Your task to perform on an android device: Search for Italian restaurants on Maps Image 0: 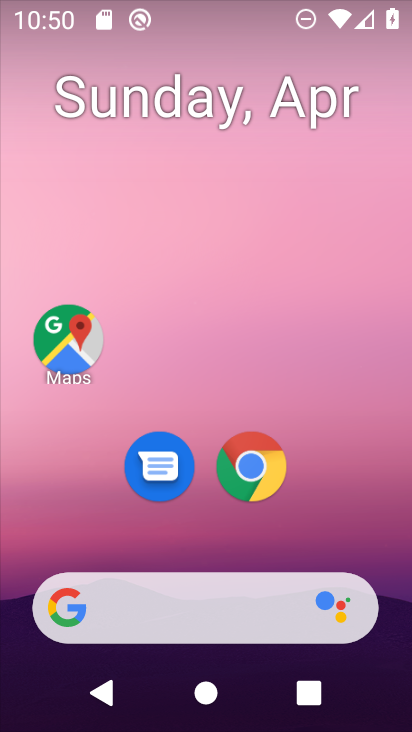
Step 0: drag from (353, 522) to (360, 150)
Your task to perform on an android device: Search for Italian restaurants on Maps Image 1: 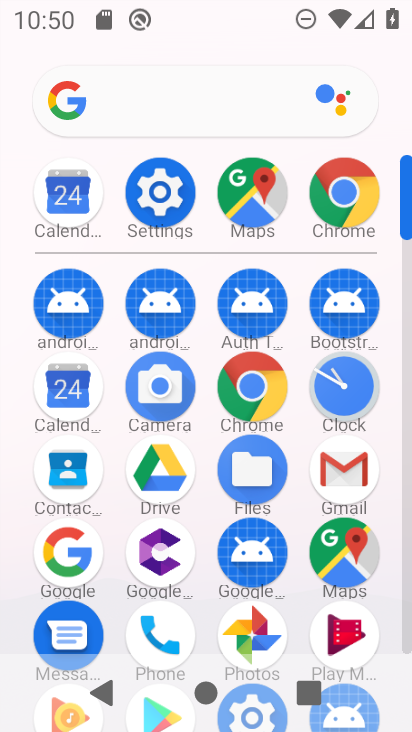
Step 1: click (349, 555)
Your task to perform on an android device: Search for Italian restaurants on Maps Image 2: 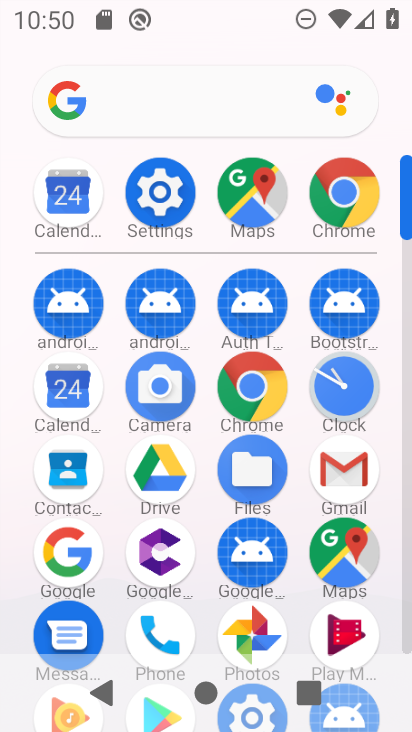
Step 2: click (349, 555)
Your task to perform on an android device: Search for Italian restaurants on Maps Image 3: 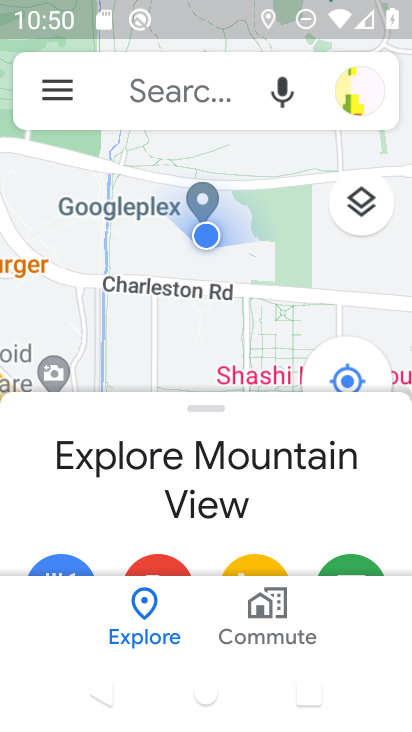
Step 3: click (187, 94)
Your task to perform on an android device: Search for Italian restaurants on Maps Image 4: 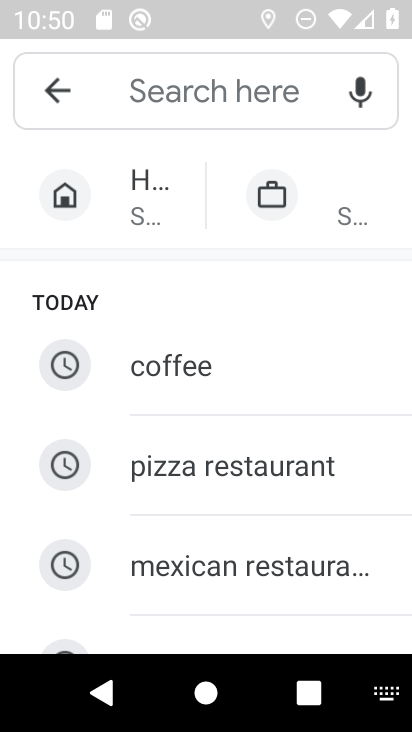
Step 4: type "italian restaurants"
Your task to perform on an android device: Search for Italian restaurants on Maps Image 5: 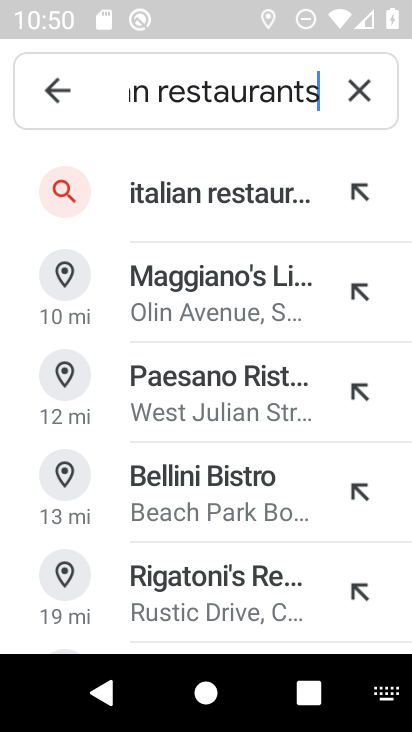
Step 5: click (297, 200)
Your task to perform on an android device: Search for Italian restaurants on Maps Image 6: 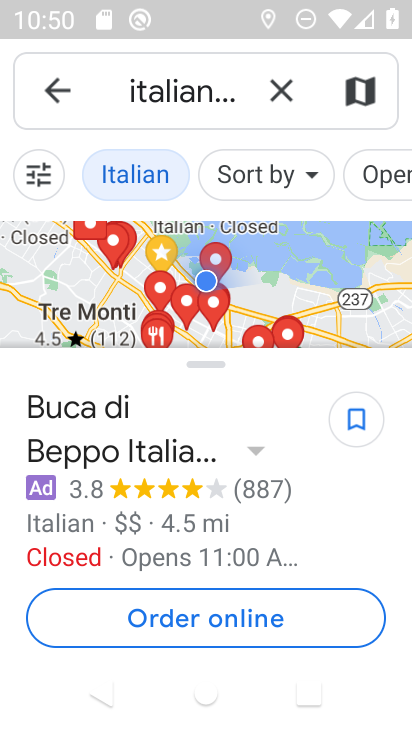
Step 6: task complete